Your task to perform on an android device: Go to calendar. Show me events next week Image 0: 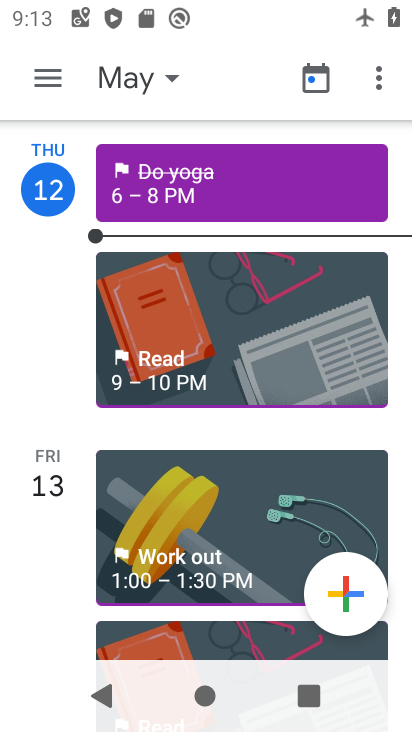
Step 0: click (157, 73)
Your task to perform on an android device: Go to calendar. Show me events next week Image 1: 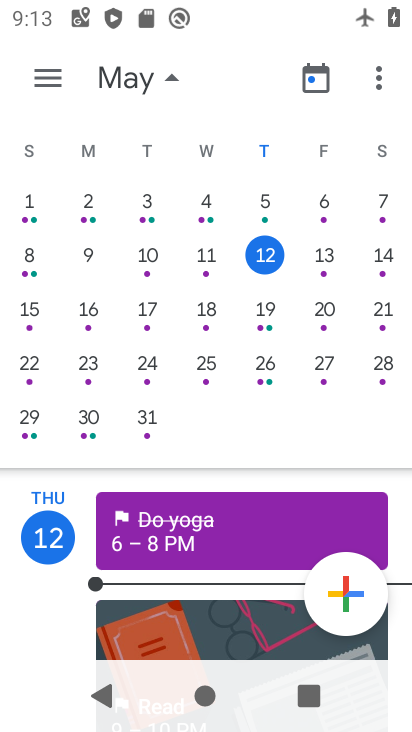
Step 1: click (209, 315)
Your task to perform on an android device: Go to calendar. Show me events next week Image 2: 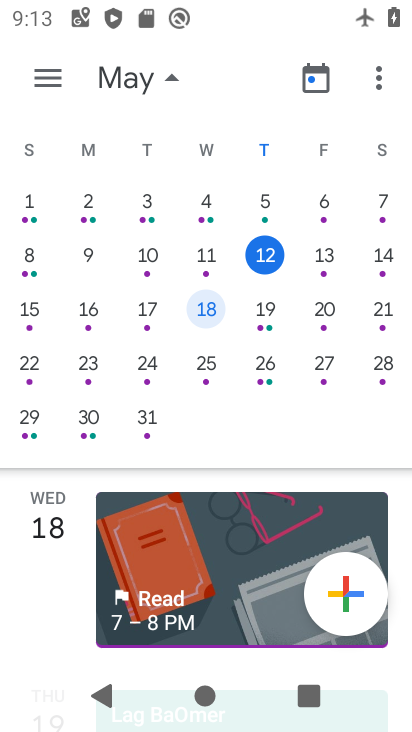
Step 2: task complete